Your task to perform on an android device: open app "File Manager" Image 0: 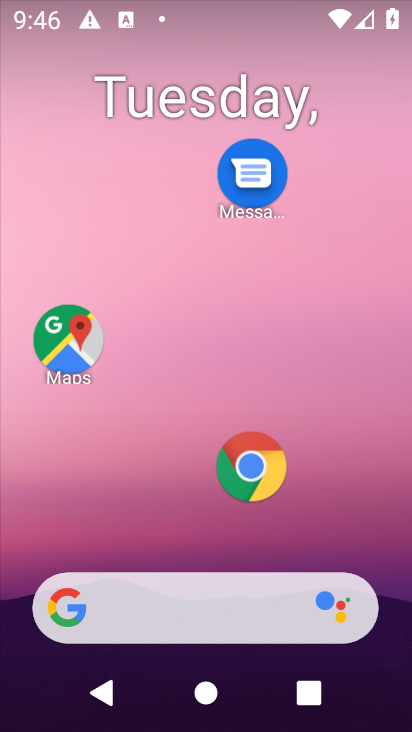
Step 0: drag from (117, 542) to (184, 13)
Your task to perform on an android device: open app "File Manager" Image 1: 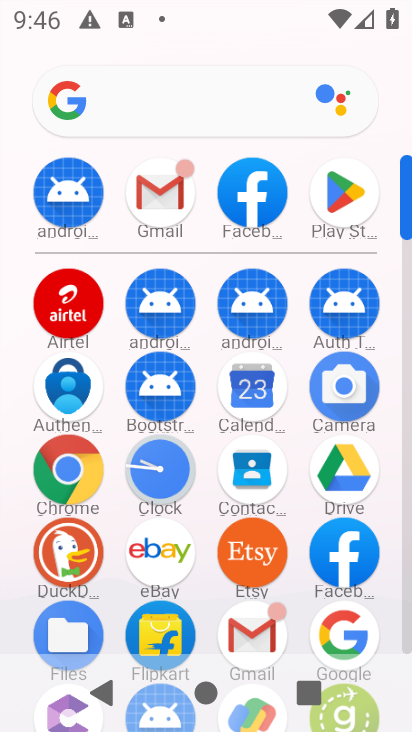
Step 1: click (331, 185)
Your task to perform on an android device: open app "File Manager" Image 2: 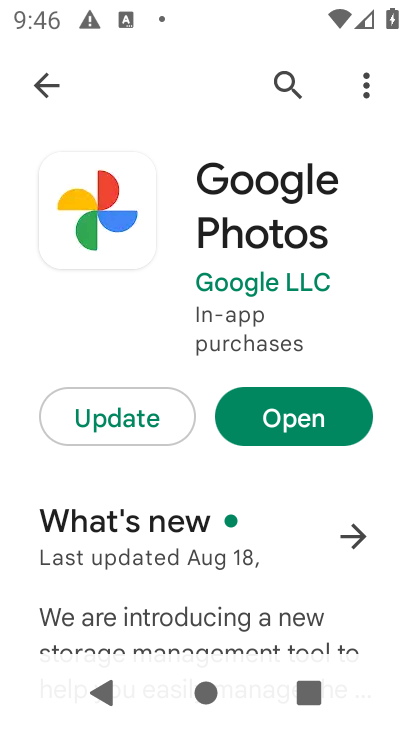
Step 2: click (286, 81)
Your task to perform on an android device: open app "File Manager" Image 3: 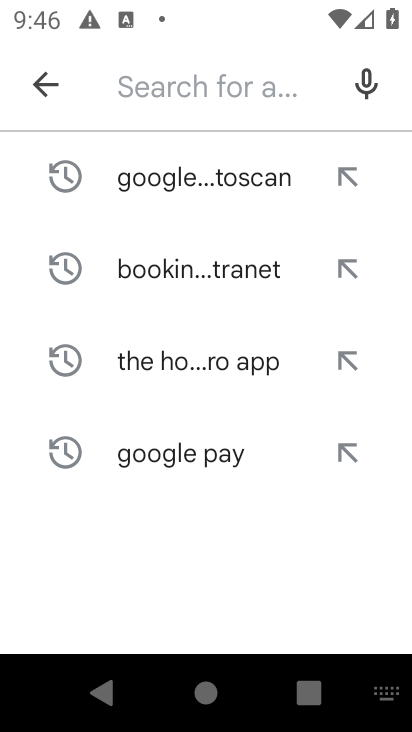
Step 3: click (145, 80)
Your task to perform on an android device: open app "File Manager" Image 4: 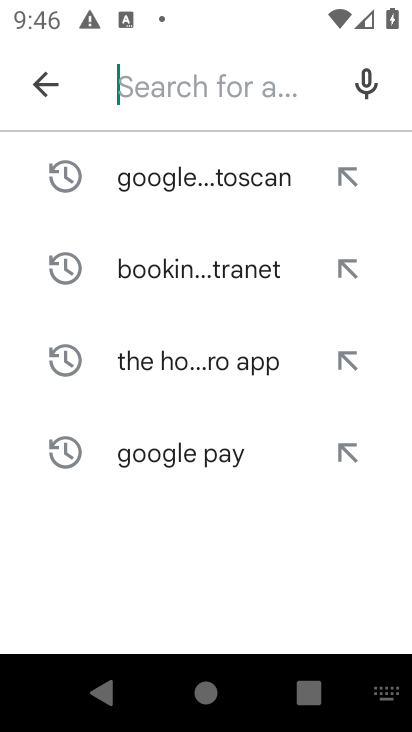
Step 4: type "File Manager"
Your task to perform on an android device: open app "File Manager" Image 5: 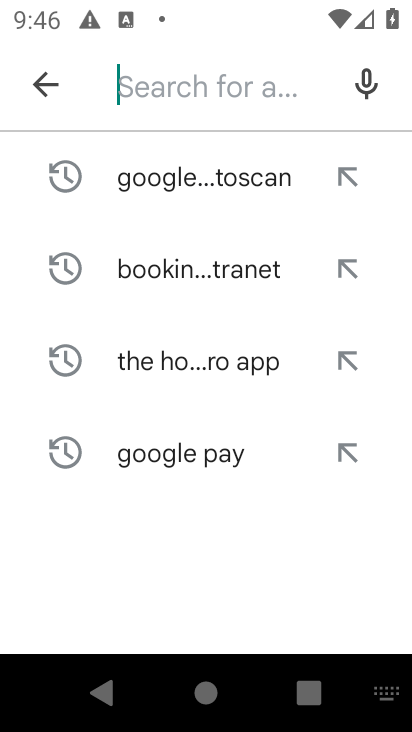
Step 5: click (163, 560)
Your task to perform on an android device: open app "File Manager" Image 6: 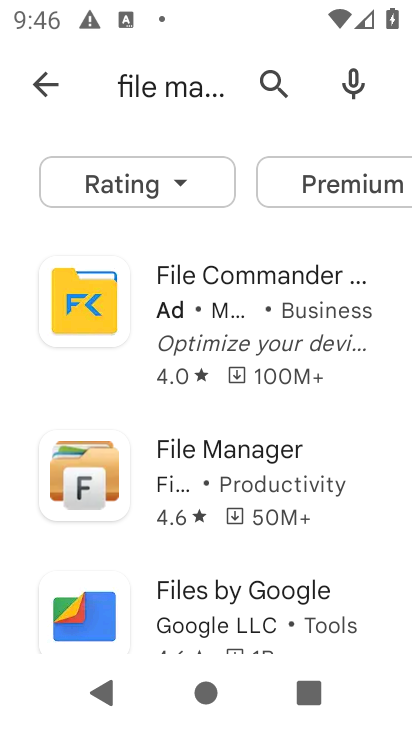
Step 6: click (233, 467)
Your task to perform on an android device: open app "File Manager" Image 7: 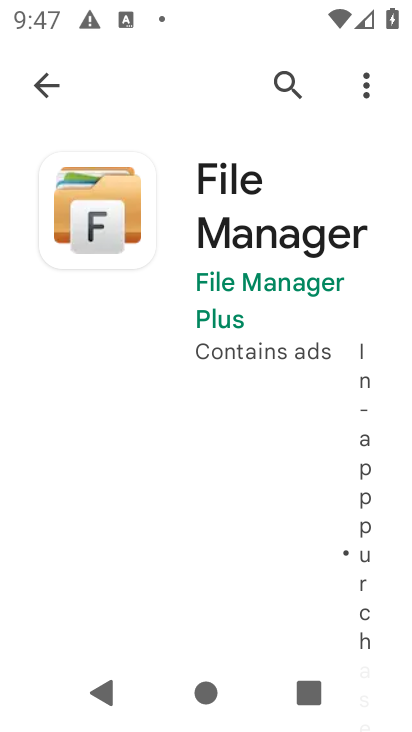
Step 7: task complete